Your task to perform on an android device: visit the assistant section in the google photos Image 0: 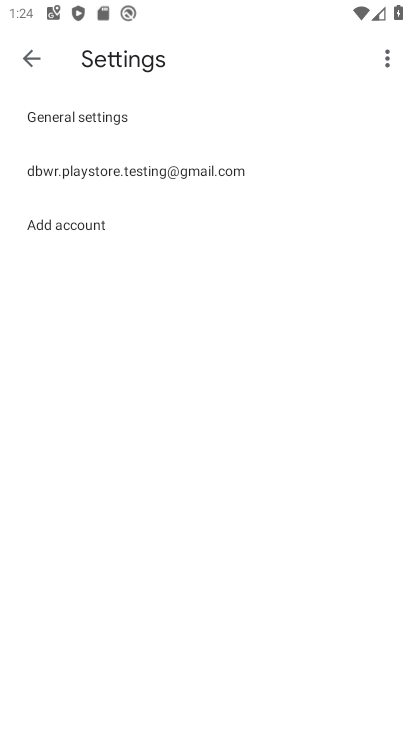
Step 0: press home button
Your task to perform on an android device: visit the assistant section in the google photos Image 1: 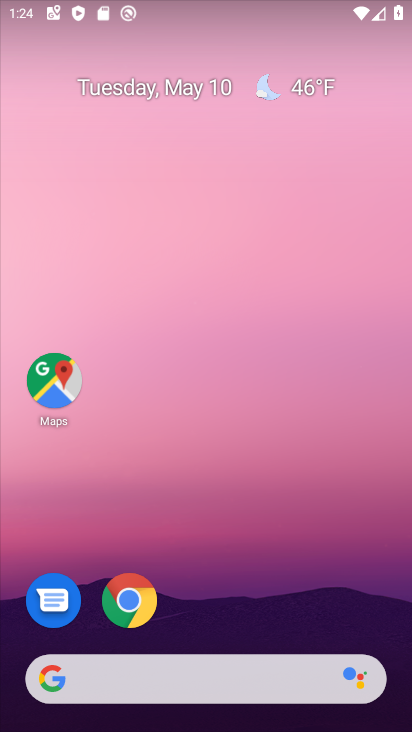
Step 1: drag from (267, 678) to (335, 195)
Your task to perform on an android device: visit the assistant section in the google photos Image 2: 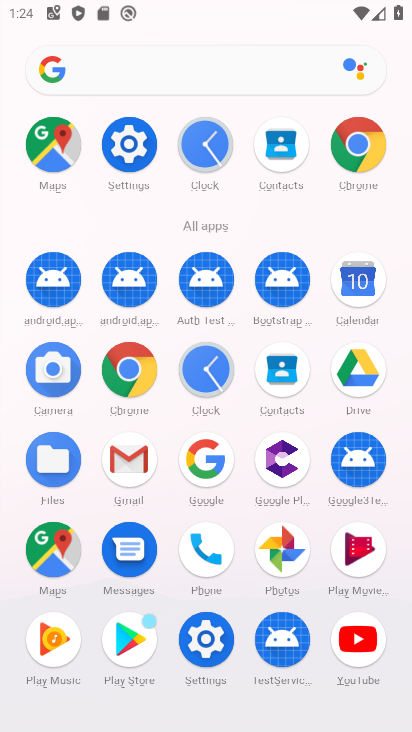
Step 2: click (288, 562)
Your task to perform on an android device: visit the assistant section in the google photos Image 3: 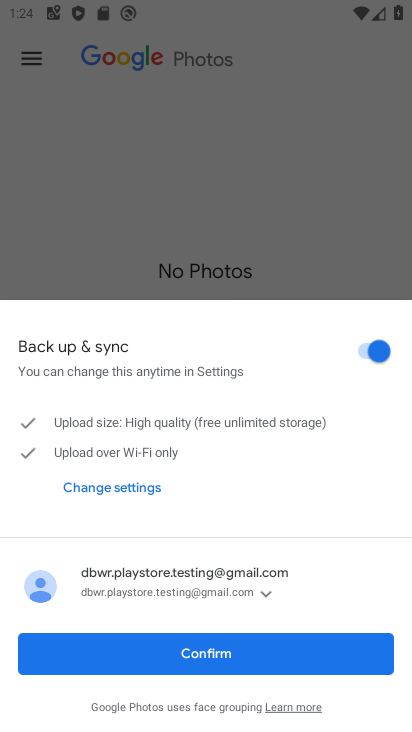
Step 3: click (208, 652)
Your task to perform on an android device: visit the assistant section in the google photos Image 4: 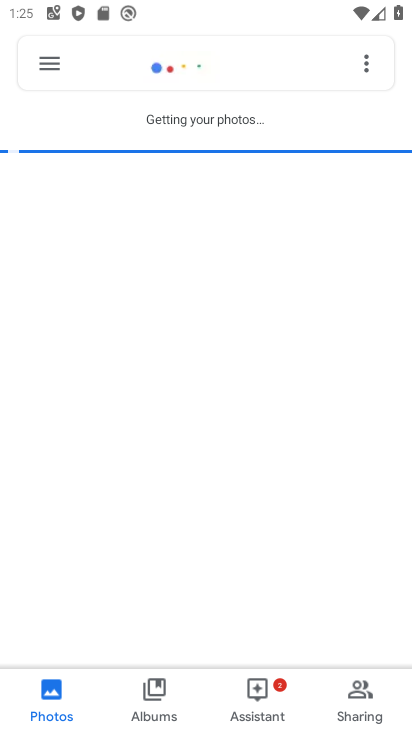
Step 4: click (260, 694)
Your task to perform on an android device: visit the assistant section in the google photos Image 5: 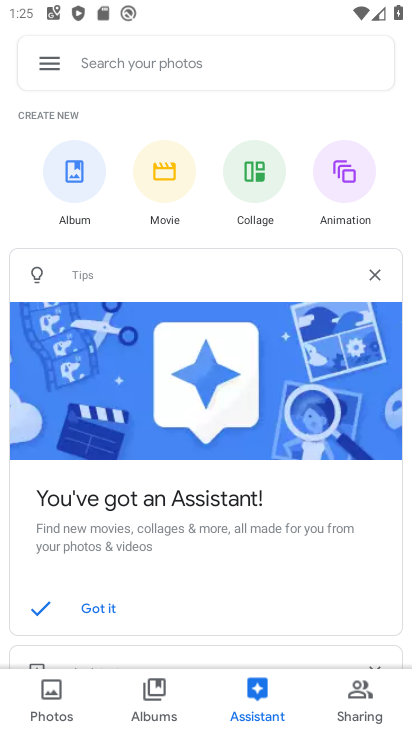
Step 5: task complete